Your task to perform on an android device: Go to Maps Image 0: 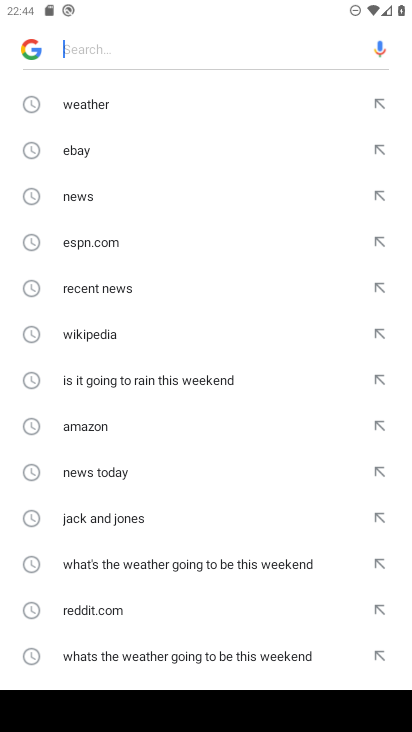
Step 0: press home button
Your task to perform on an android device: Go to Maps Image 1: 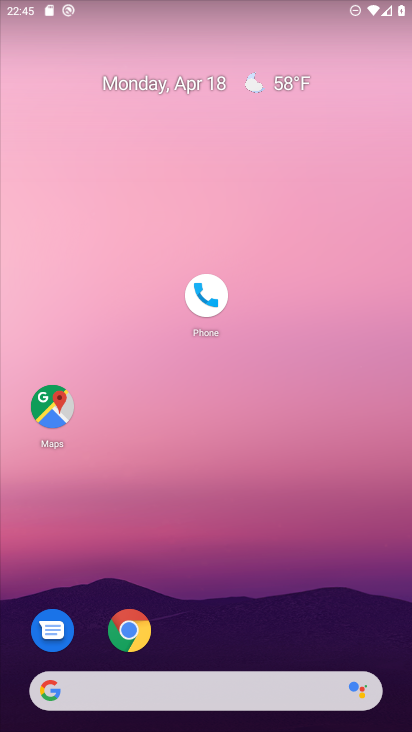
Step 1: drag from (273, 631) to (213, 194)
Your task to perform on an android device: Go to Maps Image 2: 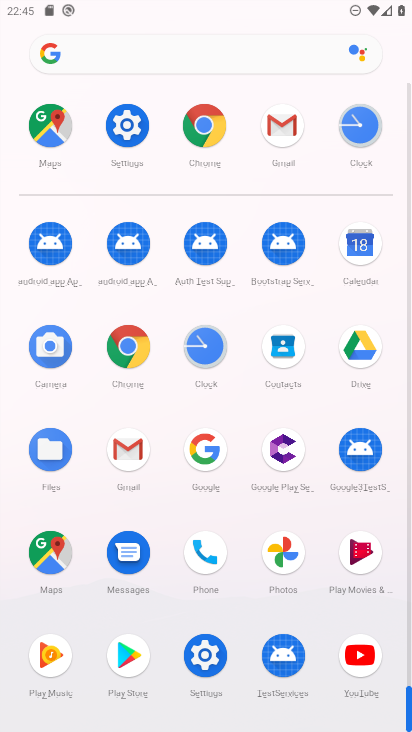
Step 2: click (53, 133)
Your task to perform on an android device: Go to Maps Image 3: 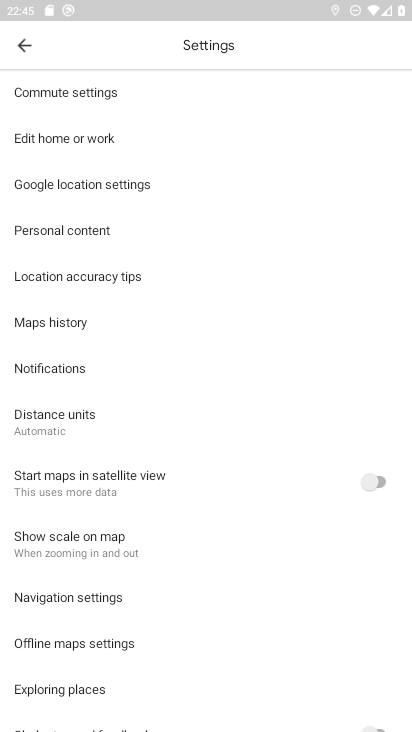
Step 3: drag from (173, 154) to (197, 622)
Your task to perform on an android device: Go to Maps Image 4: 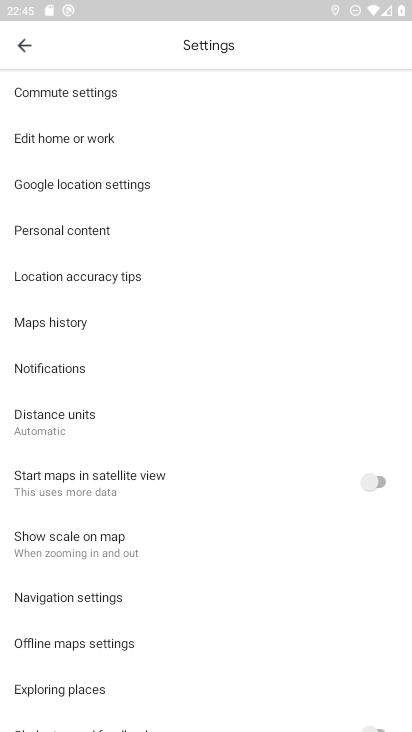
Step 4: click (21, 47)
Your task to perform on an android device: Go to Maps Image 5: 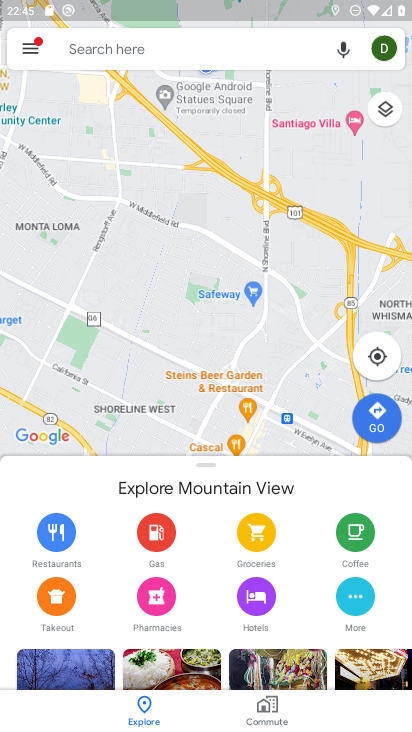
Step 5: task complete